Your task to perform on an android device: Search for amazon basics triple a on costco.com, select the first entry, and add it to the cart. Image 0: 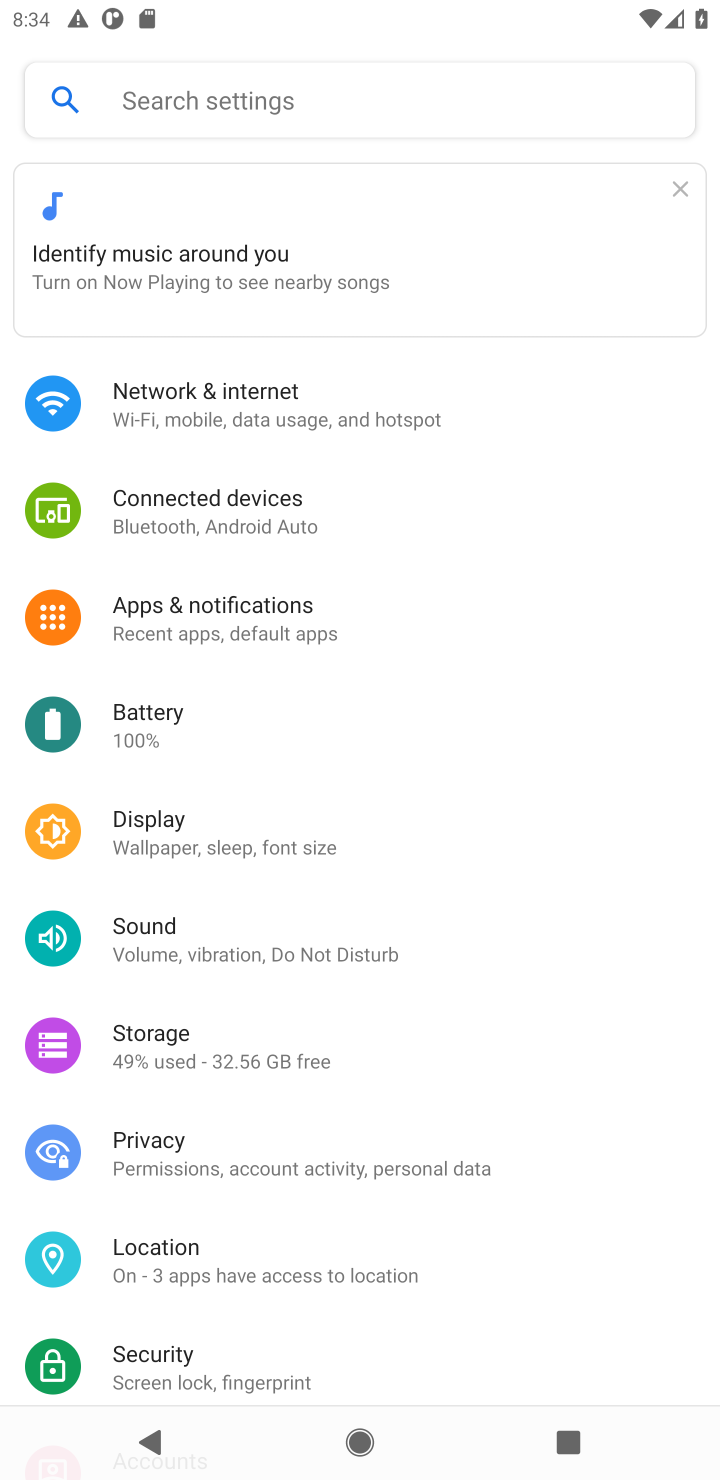
Step 0: press home button
Your task to perform on an android device: Search for amazon basics triple a on costco.com, select the first entry, and add it to the cart. Image 1: 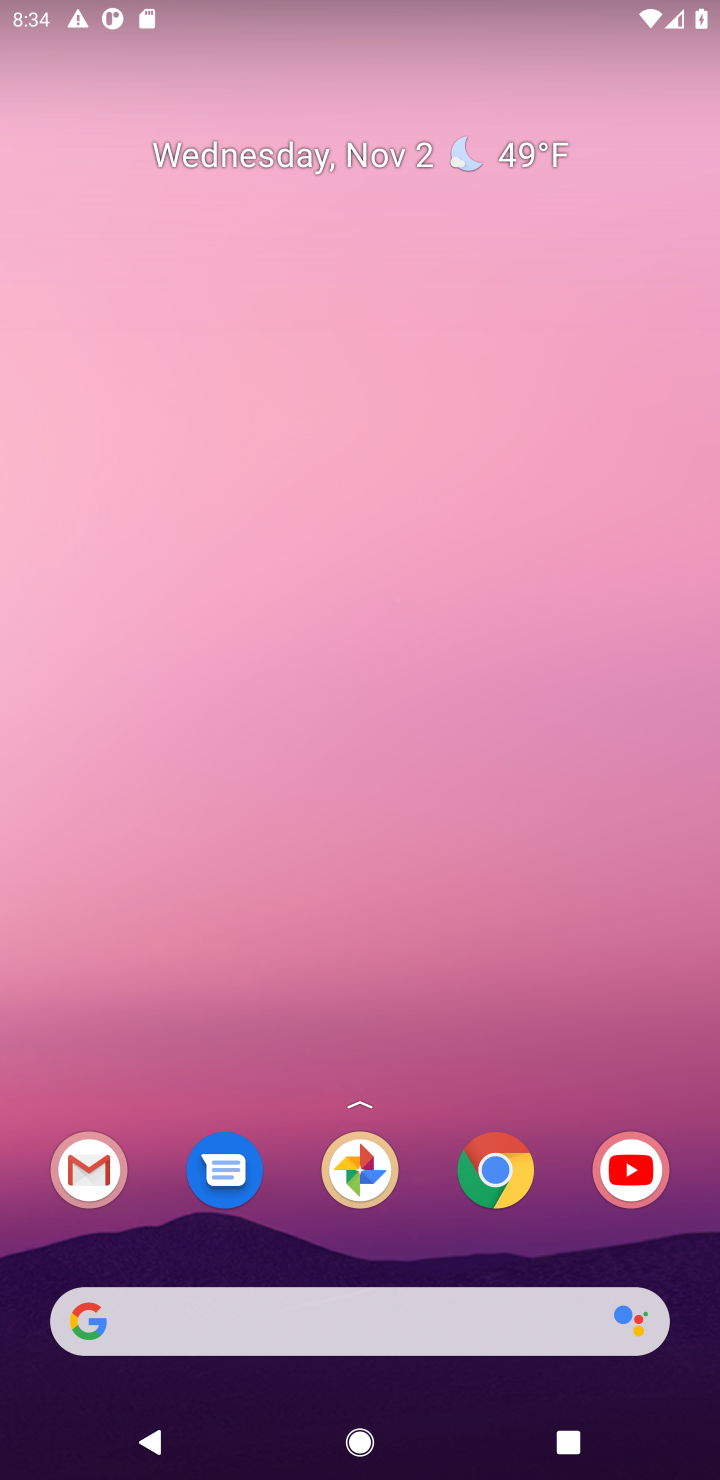
Step 1: click (512, 1186)
Your task to perform on an android device: Search for amazon basics triple a on costco.com, select the first entry, and add it to the cart. Image 2: 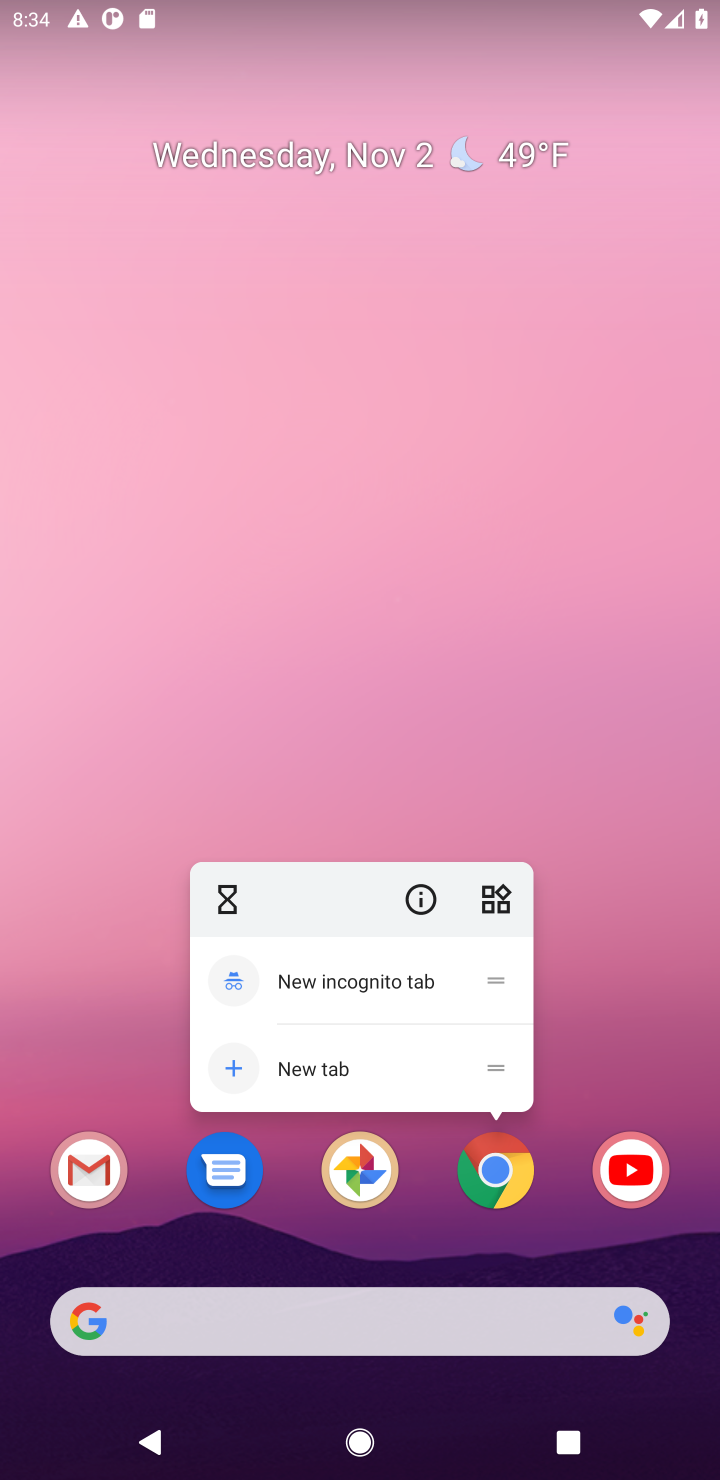
Step 2: click (500, 1168)
Your task to perform on an android device: Search for amazon basics triple a on costco.com, select the first entry, and add it to the cart. Image 3: 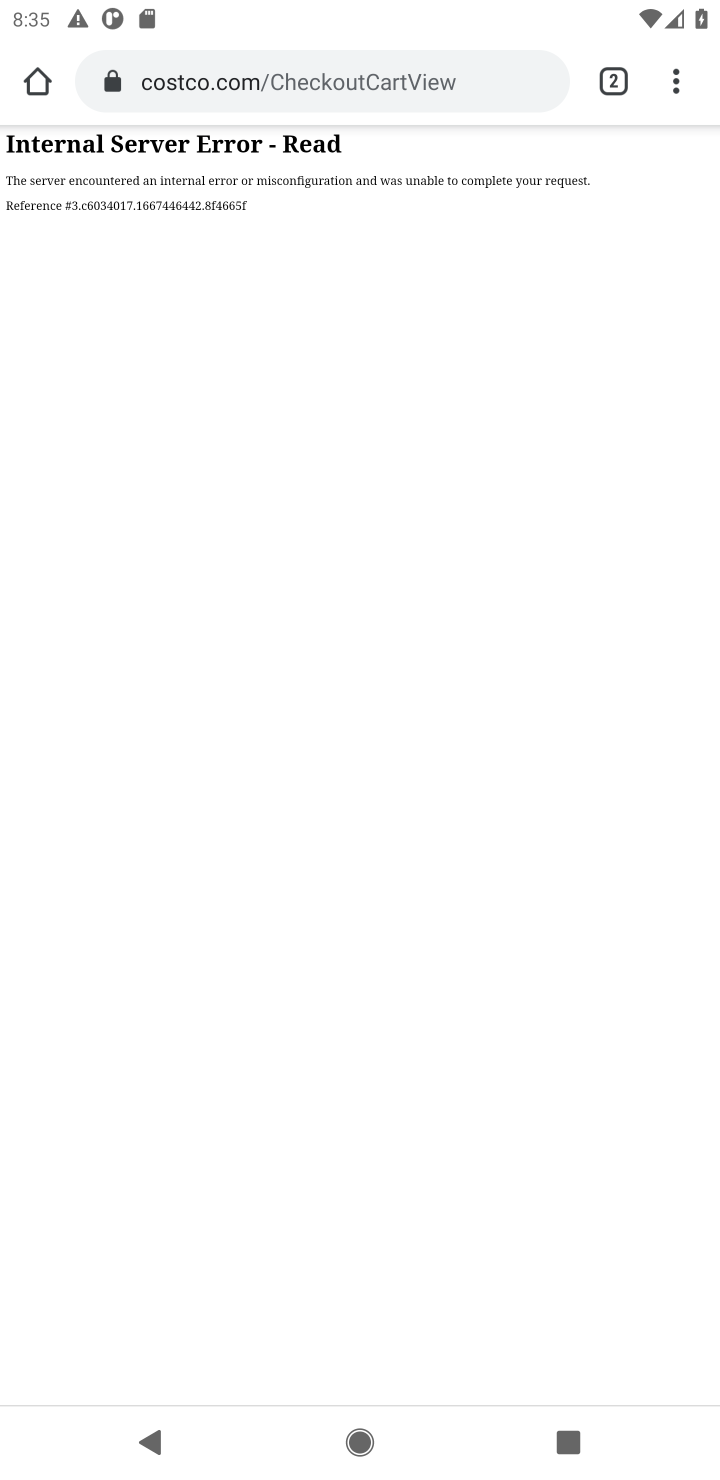
Step 3: click (428, 80)
Your task to perform on an android device: Search for amazon basics triple a on costco.com, select the first entry, and add it to the cart. Image 4: 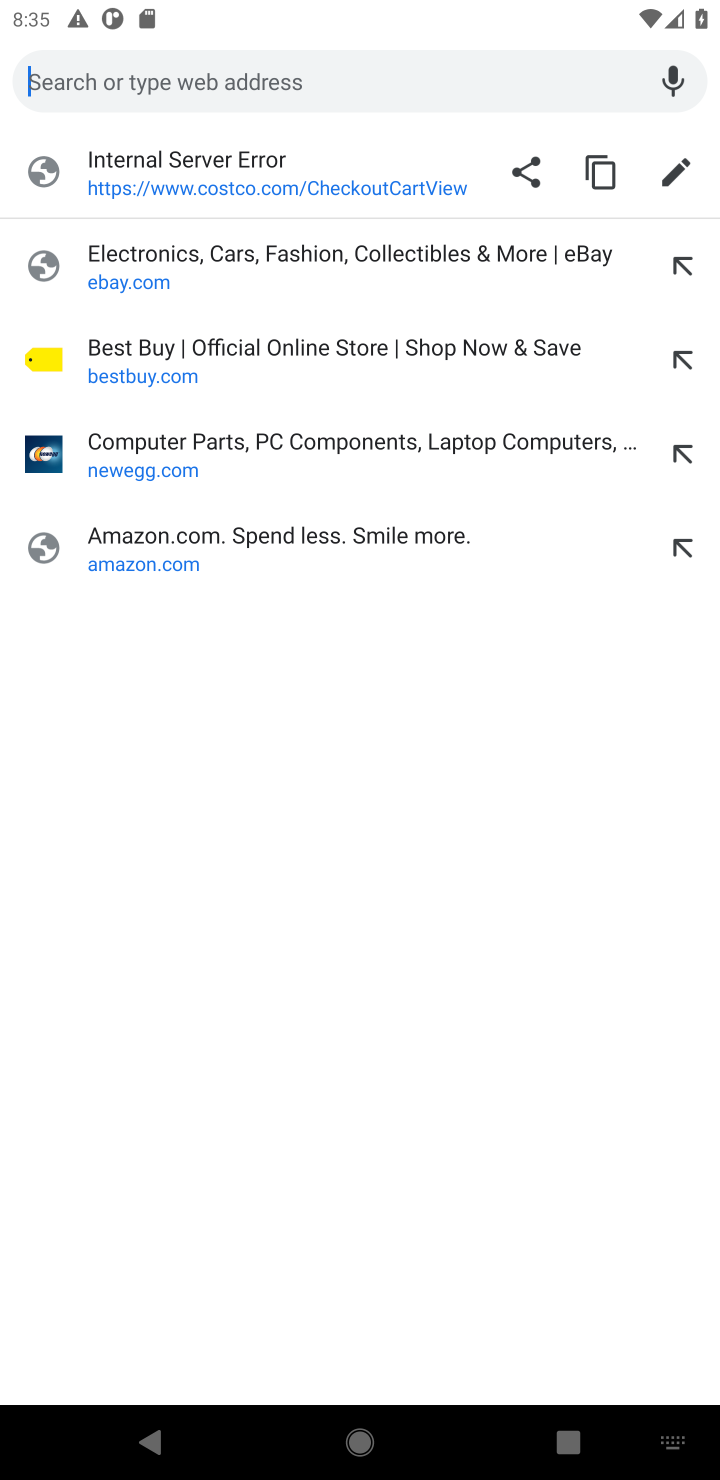
Step 4: type "costco.com"
Your task to perform on an android device: Search for amazon basics triple a on costco.com, select the first entry, and add it to the cart. Image 5: 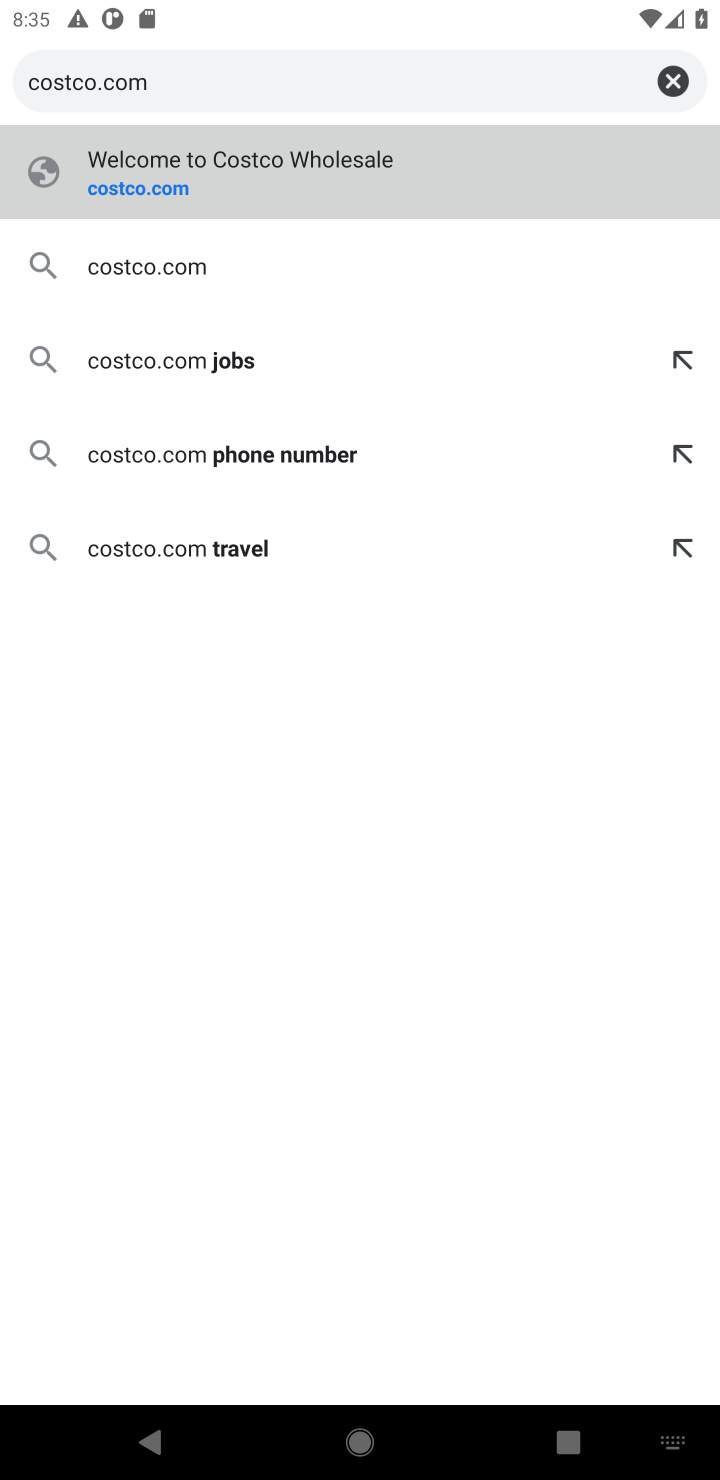
Step 5: press enter
Your task to perform on an android device: Search for amazon basics triple a on costco.com, select the first entry, and add it to the cart. Image 6: 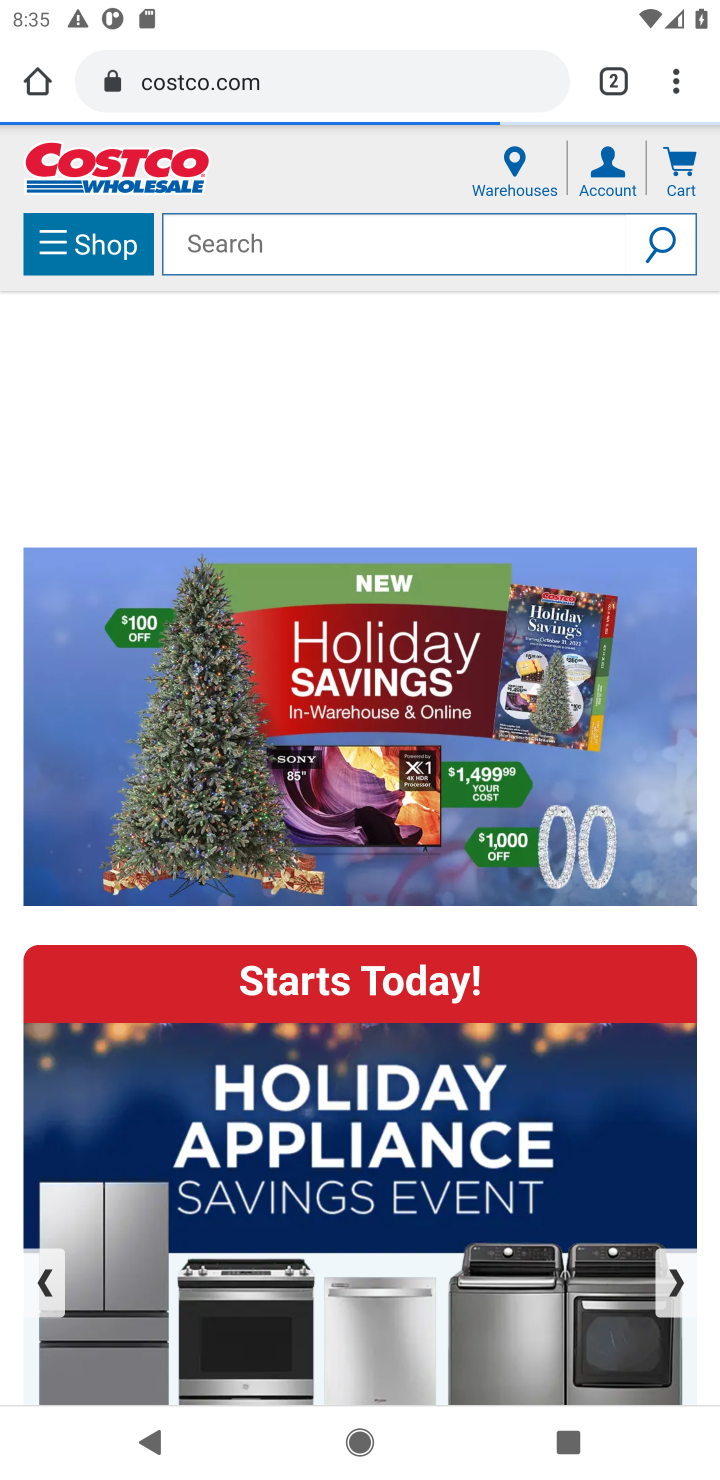
Step 6: click (375, 242)
Your task to perform on an android device: Search for amazon basics triple a on costco.com, select the first entry, and add it to the cart. Image 7: 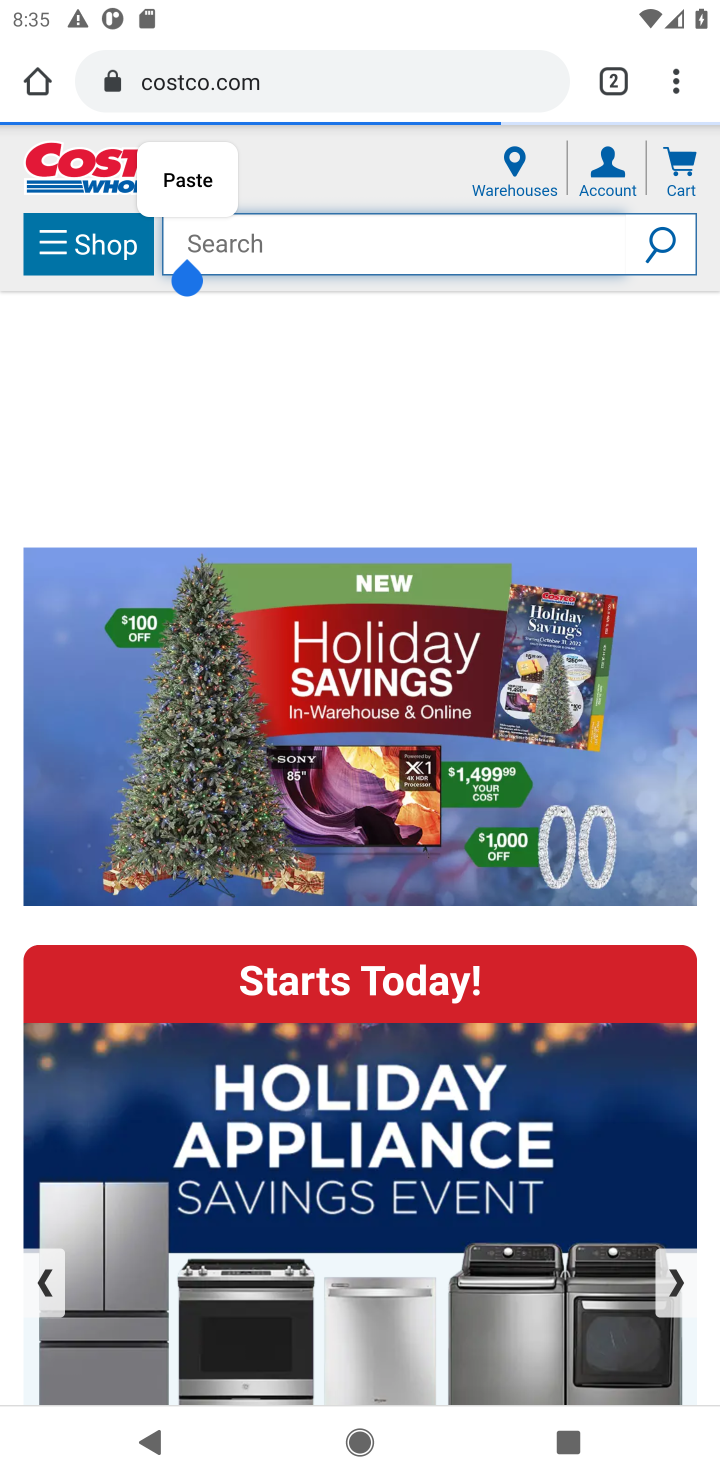
Step 7: type "amazon basics triple a"
Your task to perform on an android device: Search for amazon basics triple a on costco.com, select the first entry, and add it to the cart. Image 8: 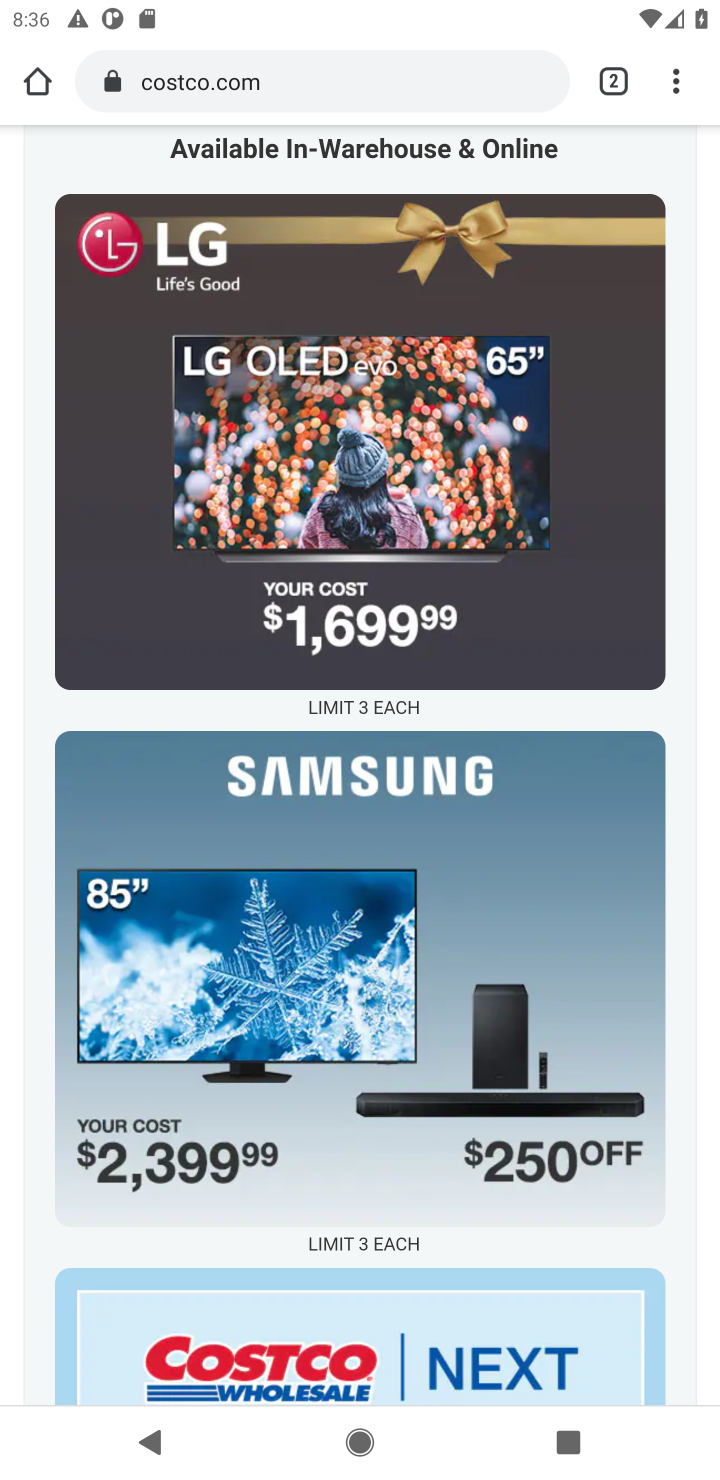
Step 8: drag from (402, 543) to (414, 1231)
Your task to perform on an android device: Search for amazon basics triple a on costco.com, select the first entry, and add it to the cart. Image 9: 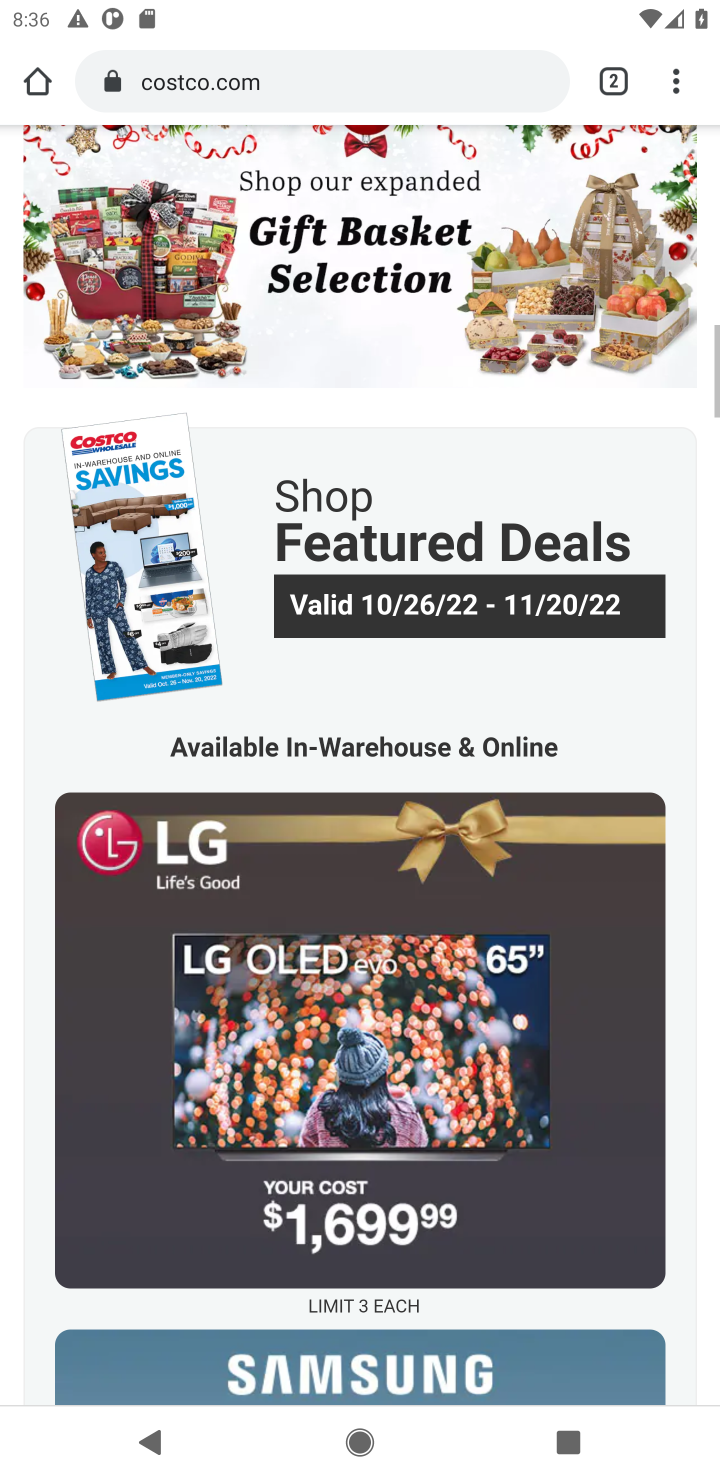
Step 9: drag from (400, 373) to (405, 1244)
Your task to perform on an android device: Search for amazon basics triple a on costco.com, select the first entry, and add it to the cart. Image 10: 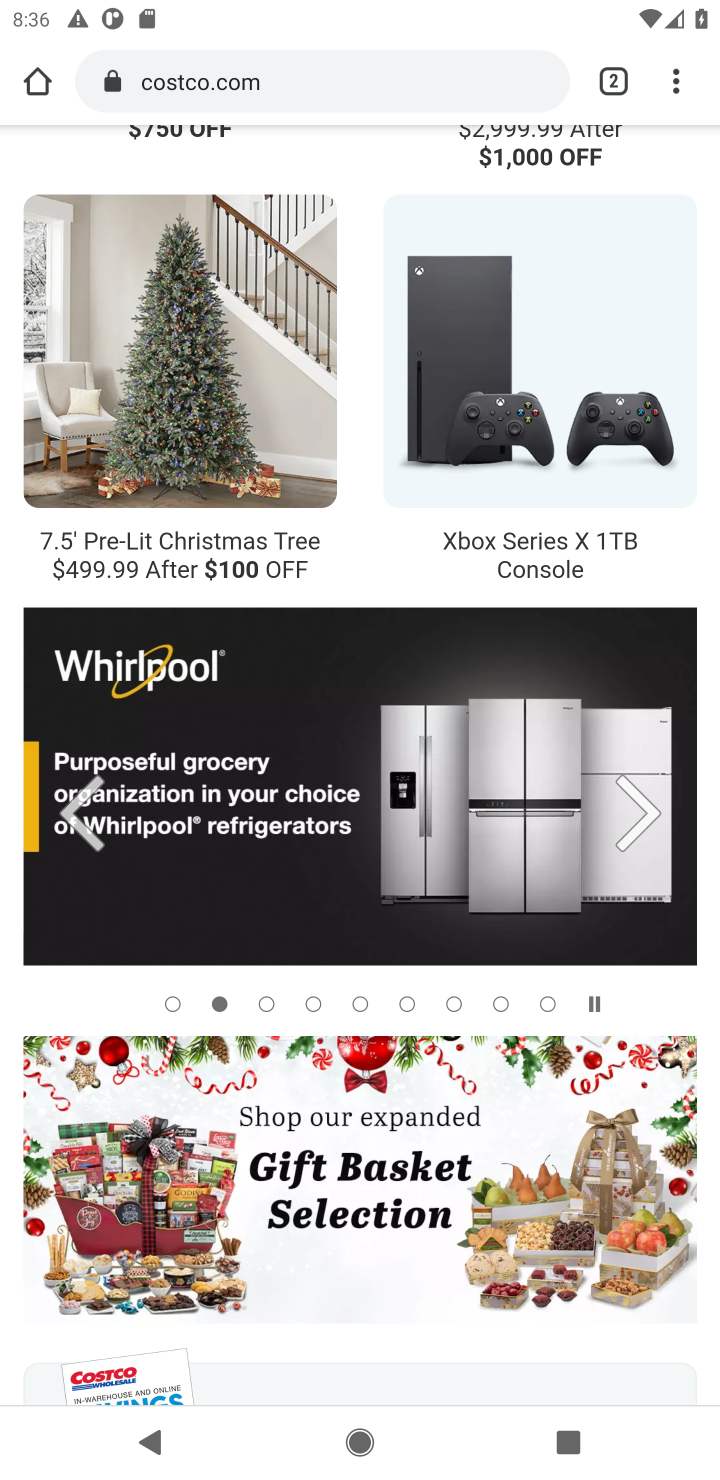
Step 10: drag from (396, 531) to (432, 1439)
Your task to perform on an android device: Search for amazon basics triple a on costco.com, select the first entry, and add it to the cart. Image 11: 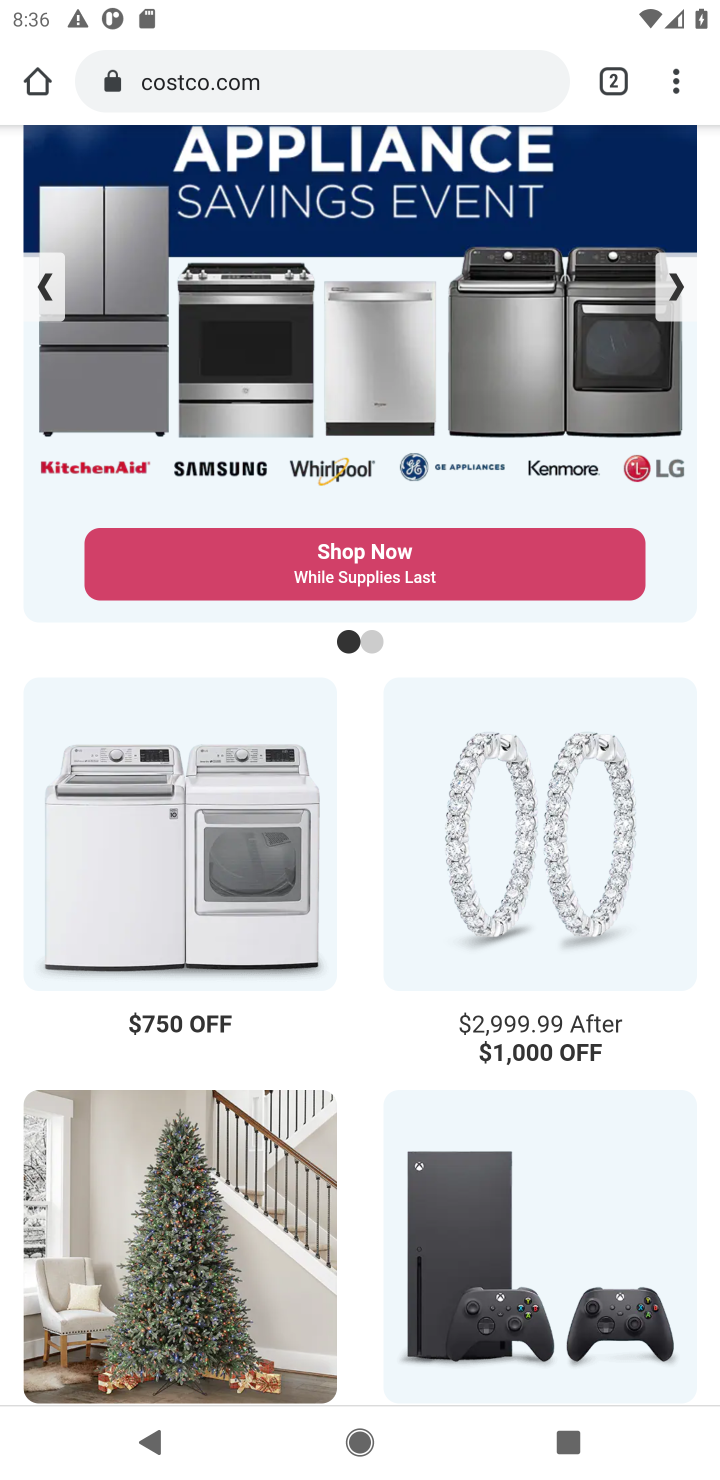
Step 11: drag from (312, 451) to (372, 1444)
Your task to perform on an android device: Search for amazon basics triple a on costco.com, select the first entry, and add it to the cart. Image 12: 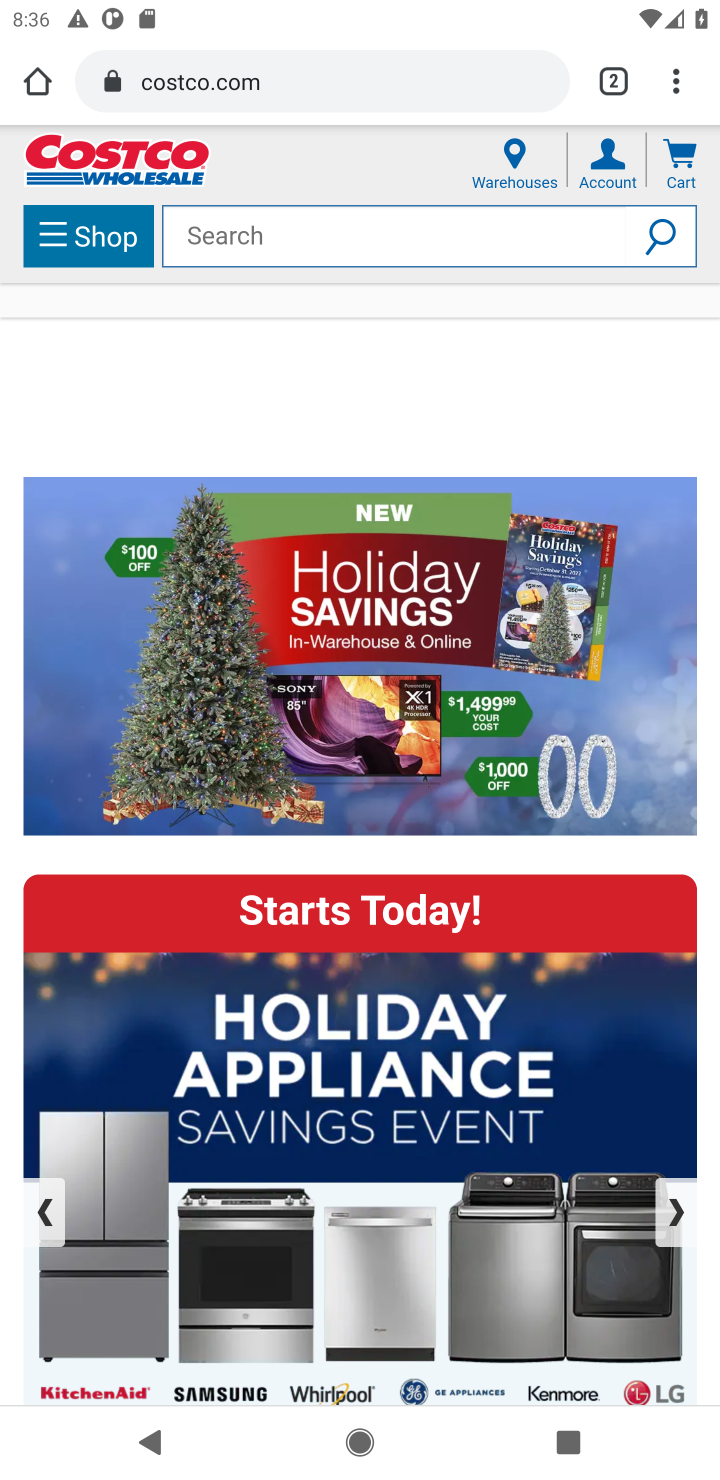
Step 12: click (356, 241)
Your task to perform on an android device: Search for amazon basics triple a on costco.com, select the first entry, and add it to the cart. Image 13: 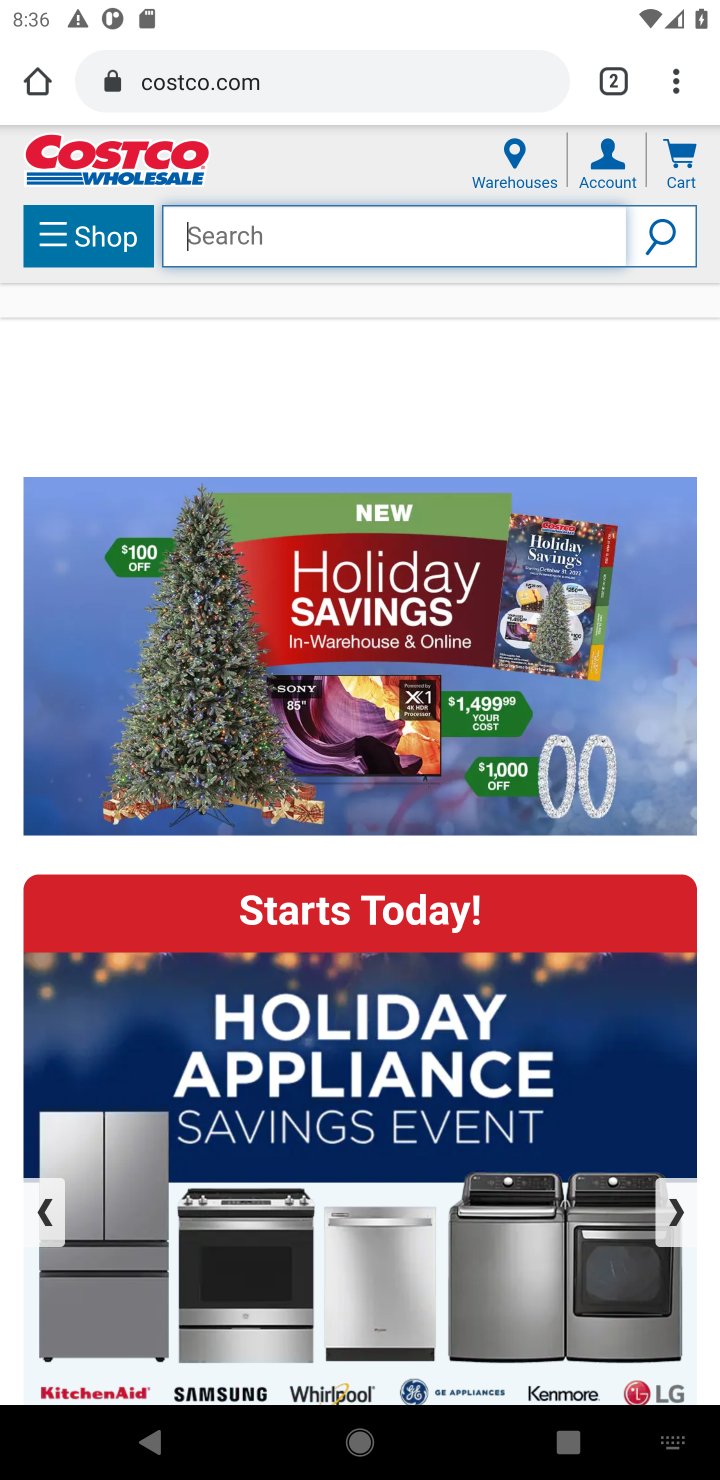
Step 13: type "mazon basics triple a"
Your task to perform on an android device: Search for amazon basics triple a on costco.com, select the first entry, and add it to the cart. Image 14: 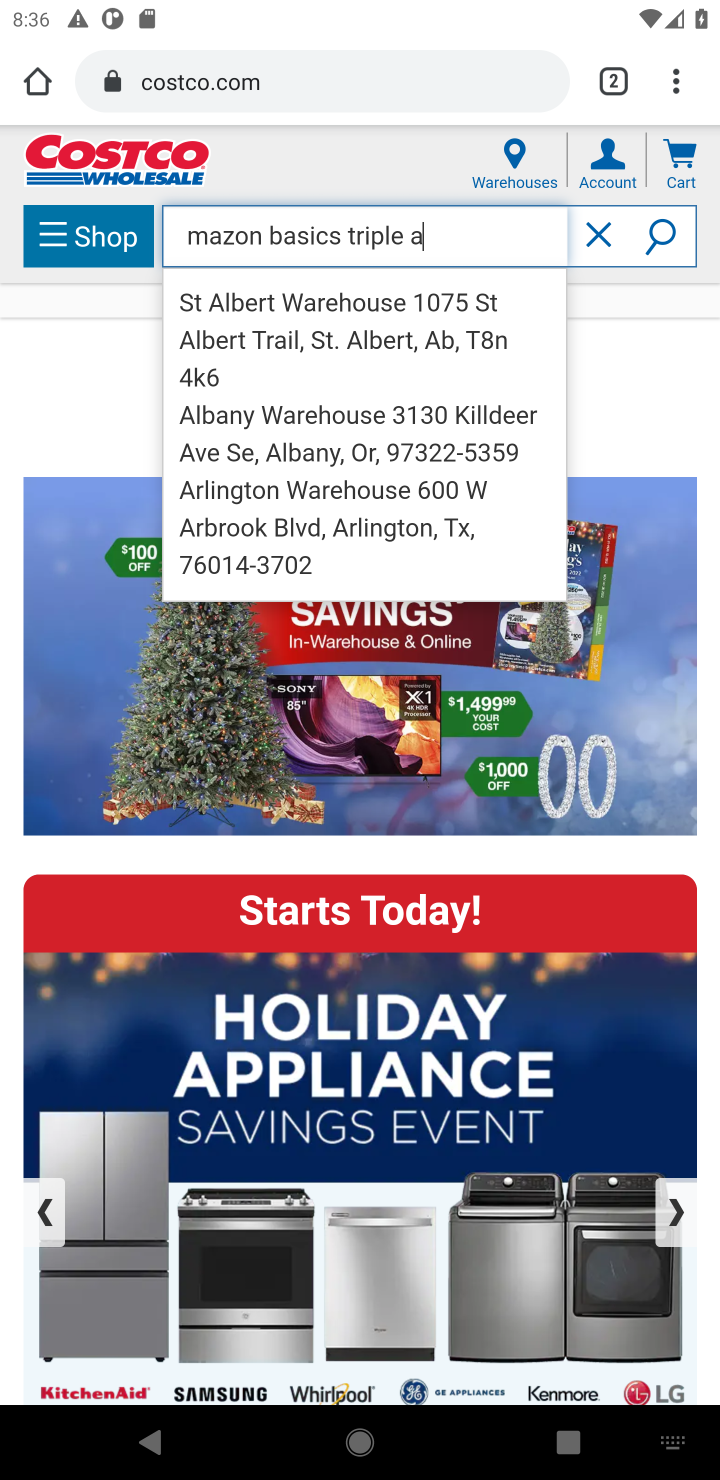
Step 14: press enter
Your task to perform on an android device: Search for amazon basics triple a on costco.com, select the first entry, and add it to the cart. Image 15: 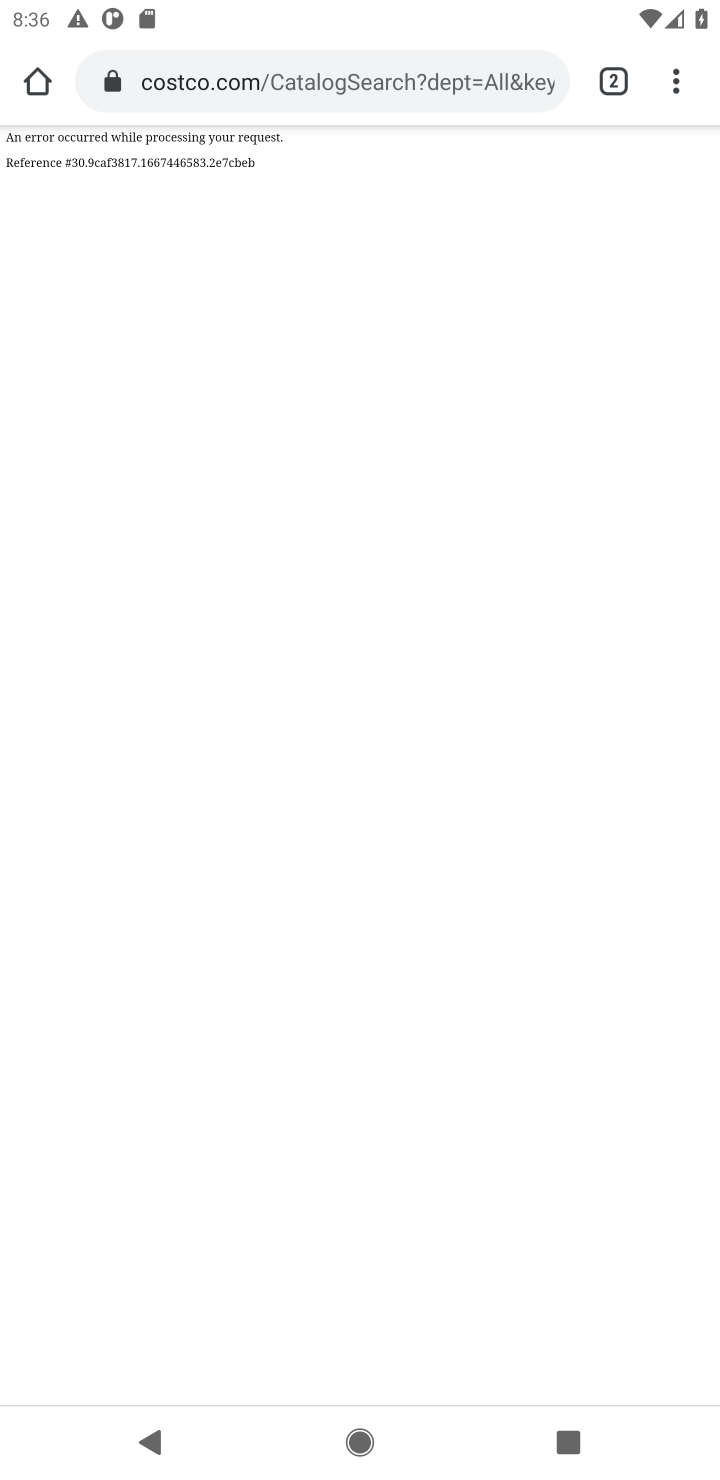
Step 15: task complete